Your task to perform on an android device: turn on wifi Image 0: 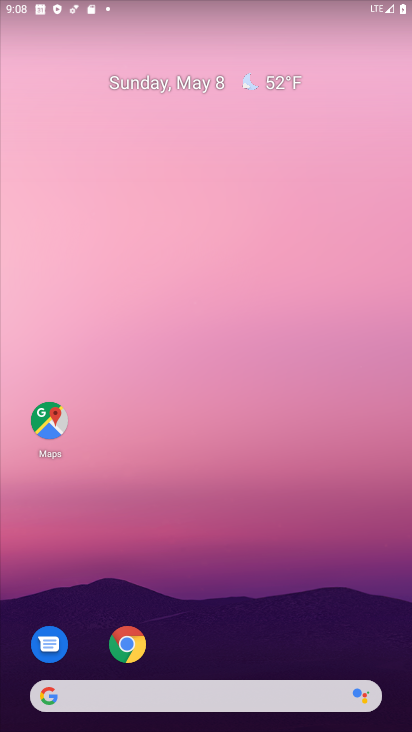
Step 0: drag from (196, 658) to (238, 293)
Your task to perform on an android device: turn on wifi Image 1: 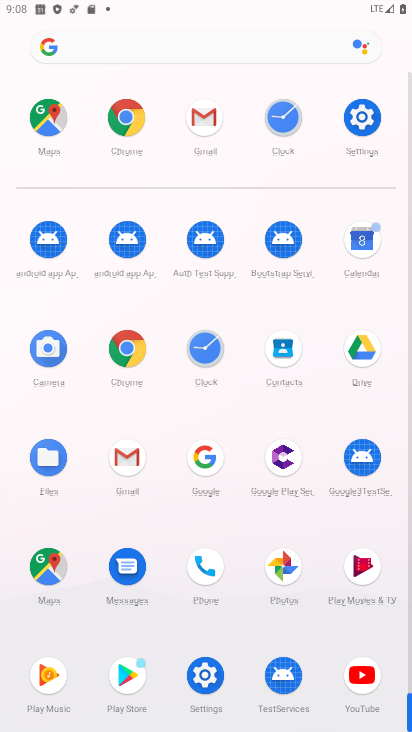
Step 1: click (378, 108)
Your task to perform on an android device: turn on wifi Image 2: 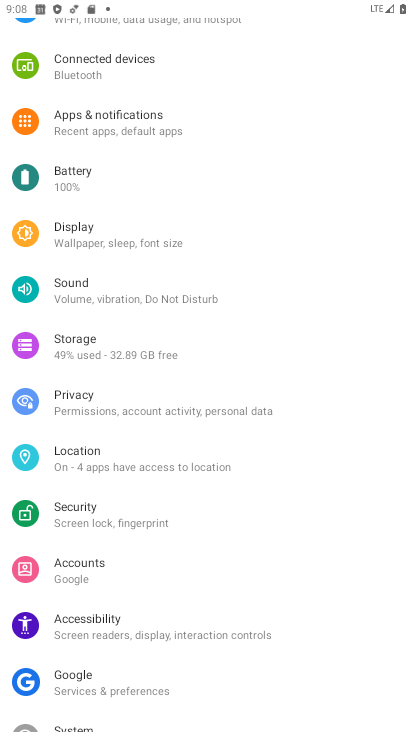
Step 2: drag from (297, 587) to (281, 169)
Your task to perform on an android device: turn on wifi Image 3: 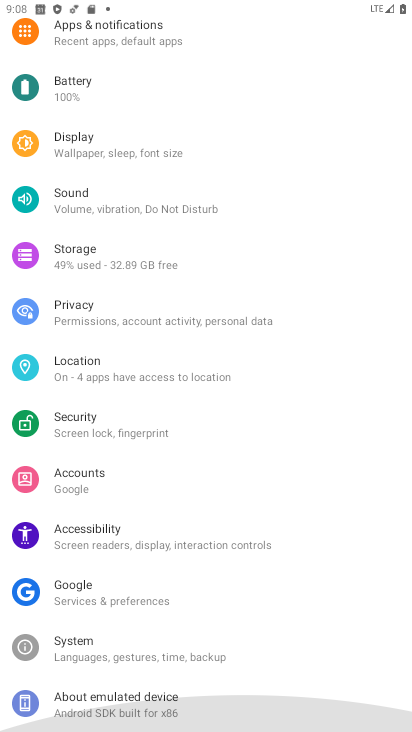
Step 3: drag from (274, 164) to (251, 715)
Your task to perform on an android device: turn on wifi Image 4: 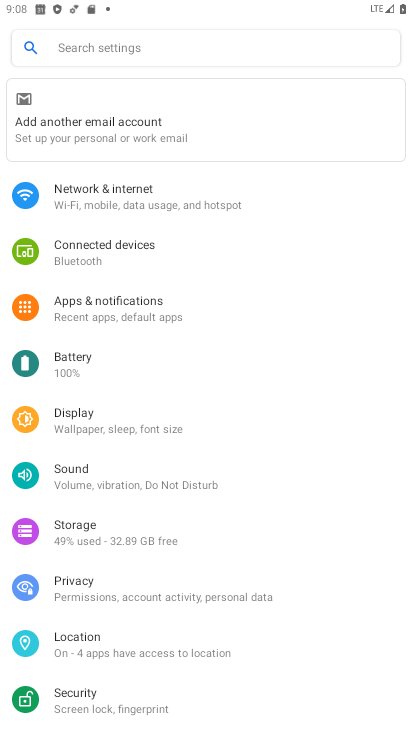
Step 4: drag from (243, 196) to (242, 393)
Your task to perform on an android device: turn on wifi Image 5: 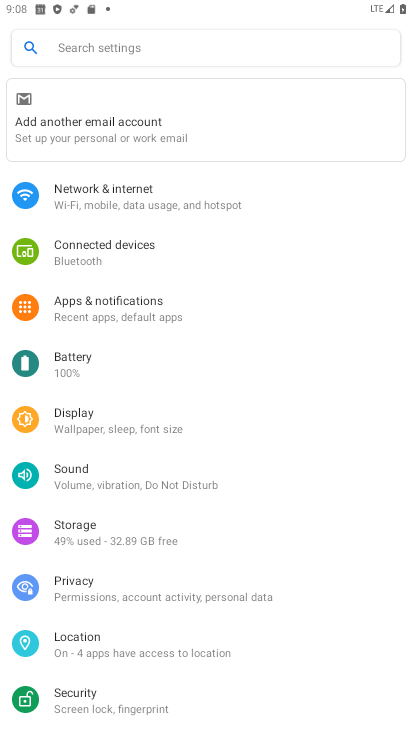
Step 5: click (135, 194)
Your task to perform on an android device: turn on wifi Image 6: 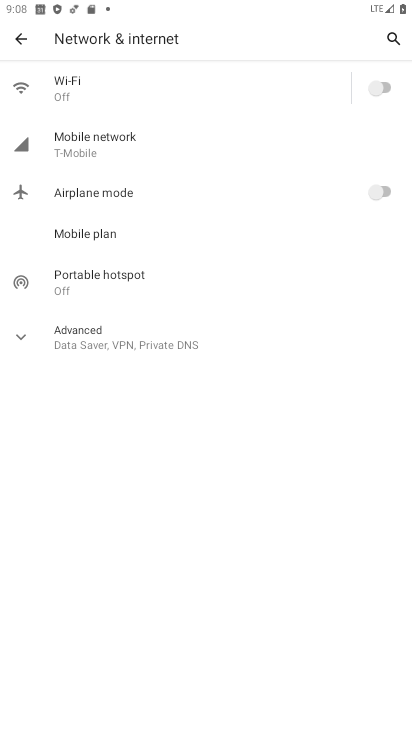
Step 6: click (371, 73)
Your task to perform on an android device: turn on wifi Image 7: 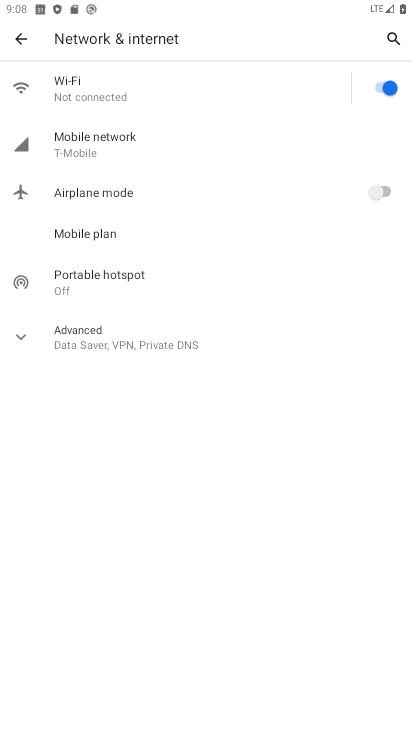
Step 7: task complete